Your task to perform on an android device: Clear the cart on bestbuy.com. Add jbl flip 4 to the cart on bestbuy.com, then select checkout. Image 0: 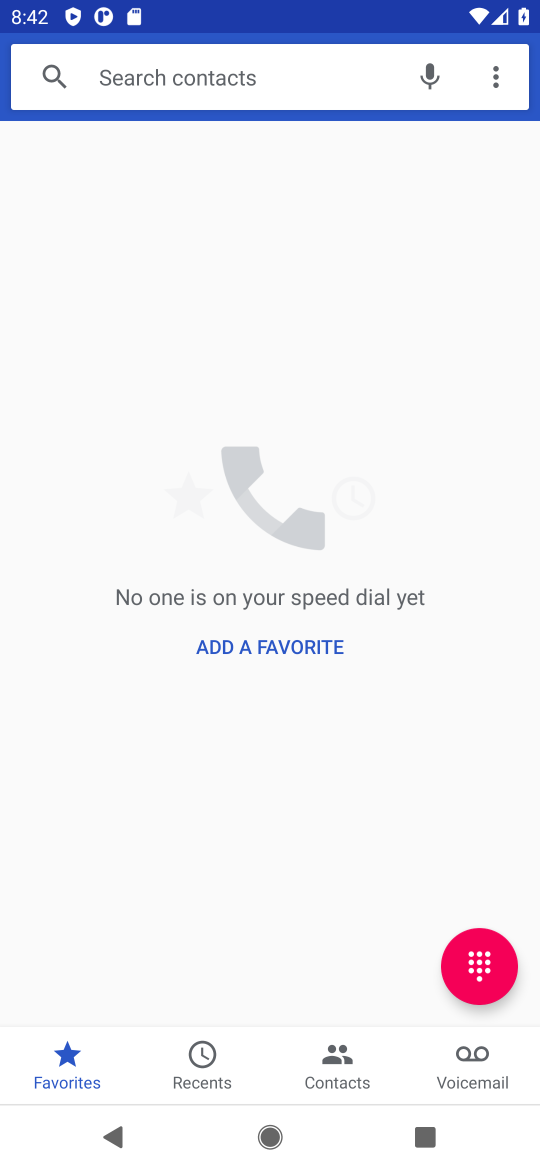
Step 0: press home button
Your task to perform on an android device: Clear the cart on bestbuy.com. Add jbl flip 4 to the cart on bestbuy.com, then select checkout. Image 1: 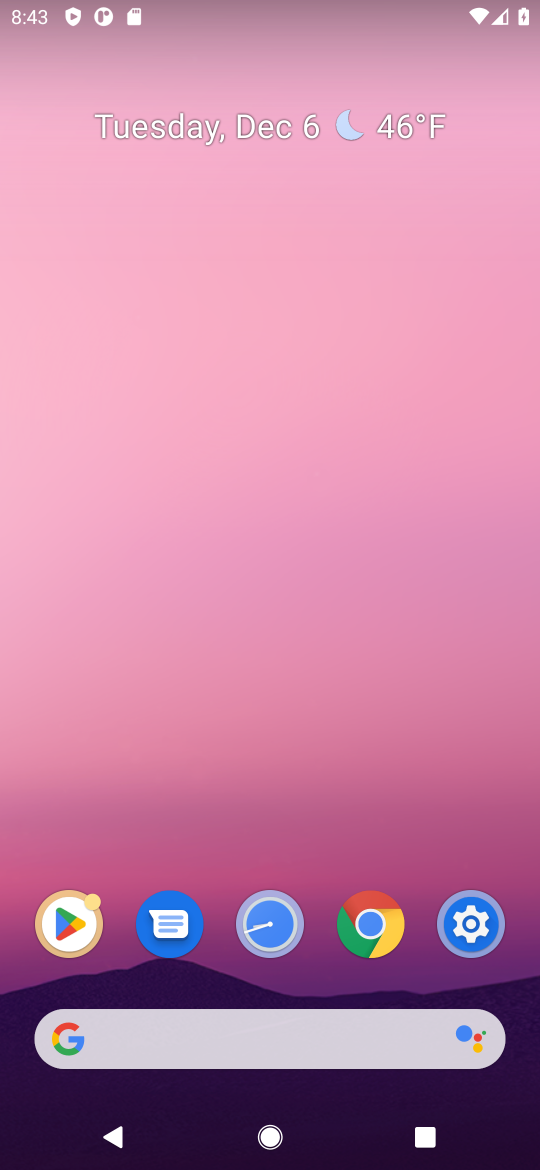
Step 1: click (368, 1045)
Your task to perform on an android device: Clear the cart on bestbuy.com. Add jbl flip 4 to the cart on bestbuy.com, then select checkout. Image 2: 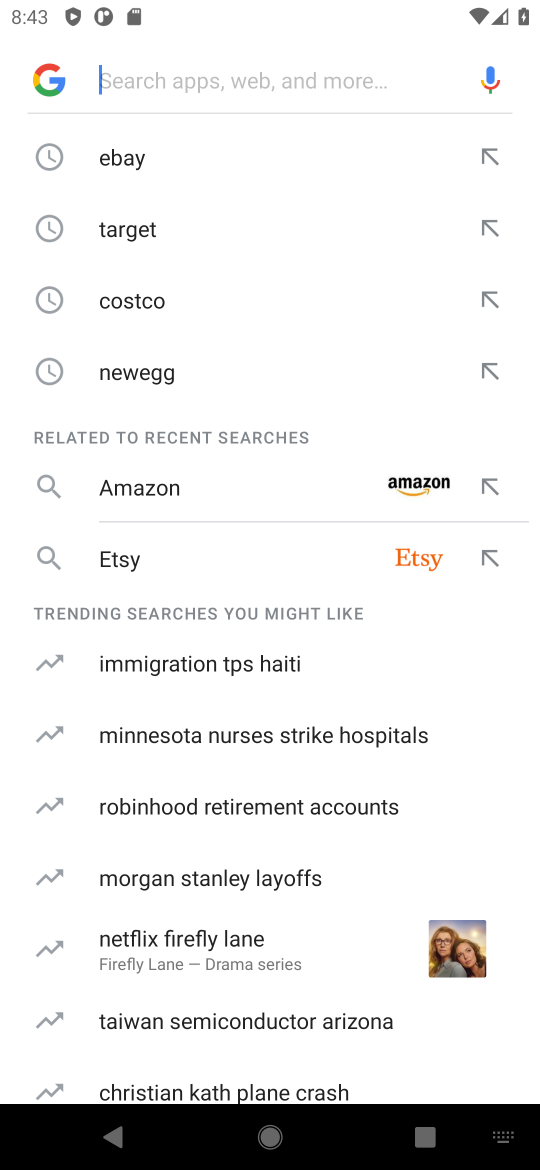
Step 2: type "bestbuy"
Your task to perform on an android device: Clear the cart on bestbuy.com. Add jbl flip 4 to the cart on bestbuy.com, then select checkout. Image 3: 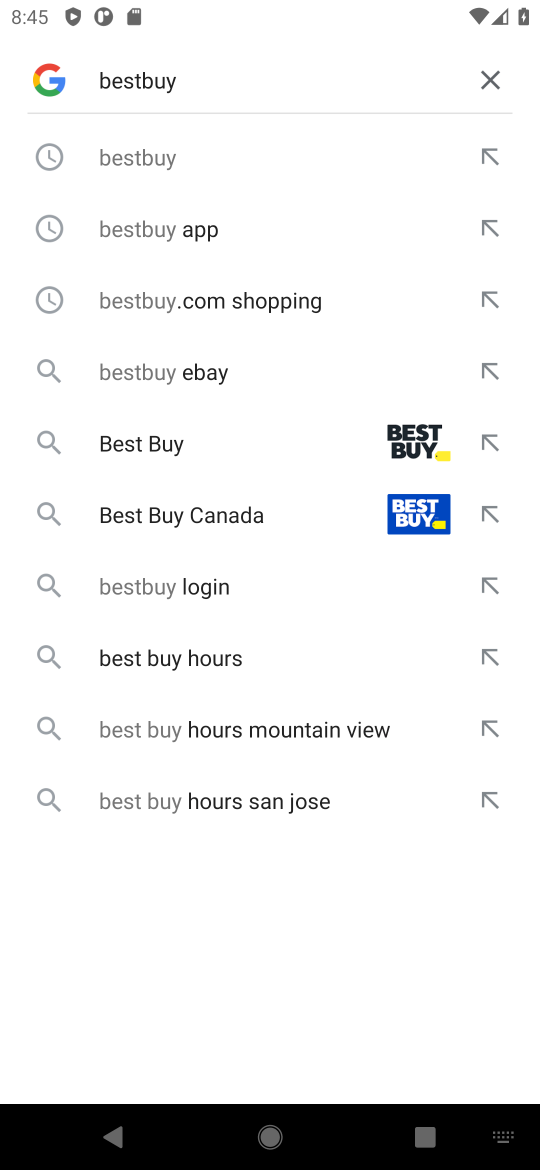
Step 3: click (176, 168)
Your task to perform on an android device: Clear the cart on bestbuy.com. Add jbl flip 4 to the cart on bestbuy.com, then select checkout. Image 4: 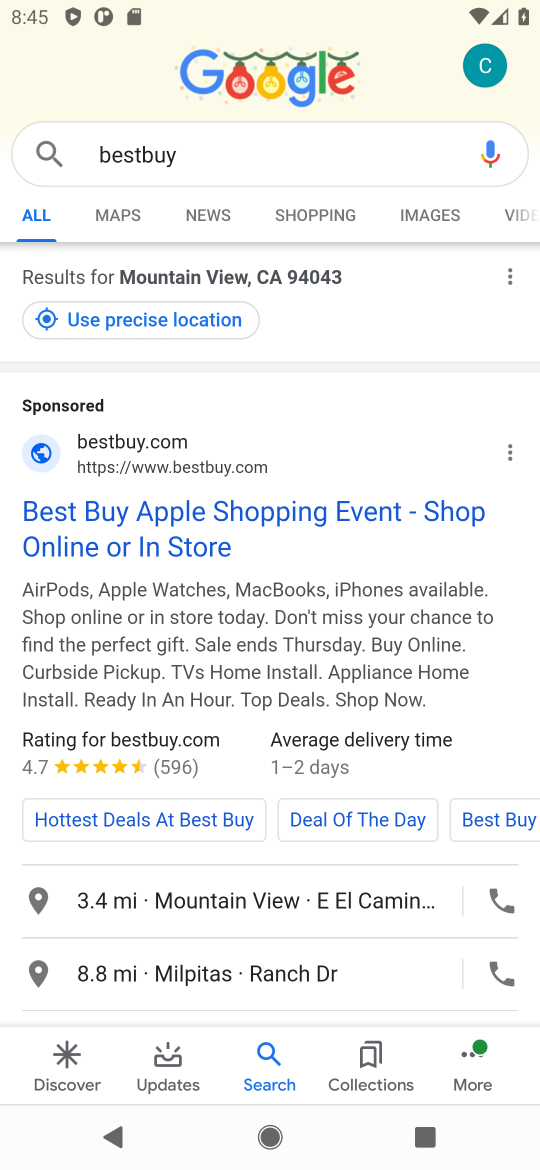
Step 4: click (273, 518)
Your task to perform on an android device: Clear the cart on bestbuy.com. Add jbl flip 4 to the cart on bestbuy.com, then select checkout. Image 5: 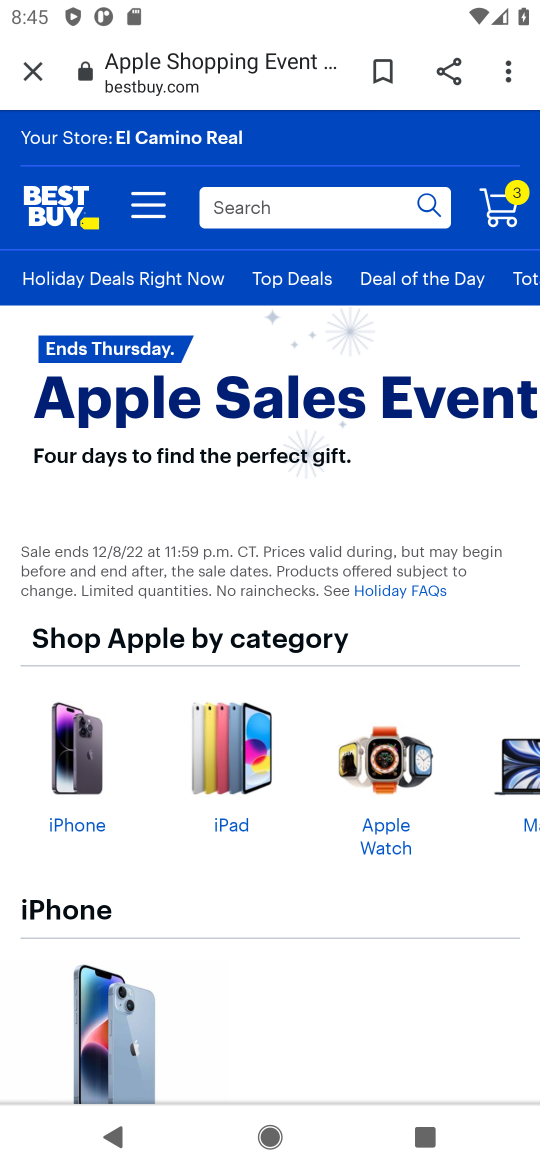
Step 5: click (317, 209)
Your task to perform on an android device: Clear the cart on bestbuy.com. Add jbl flip 4 to the cart on bestbuy.com, then select checkout. Image 6: 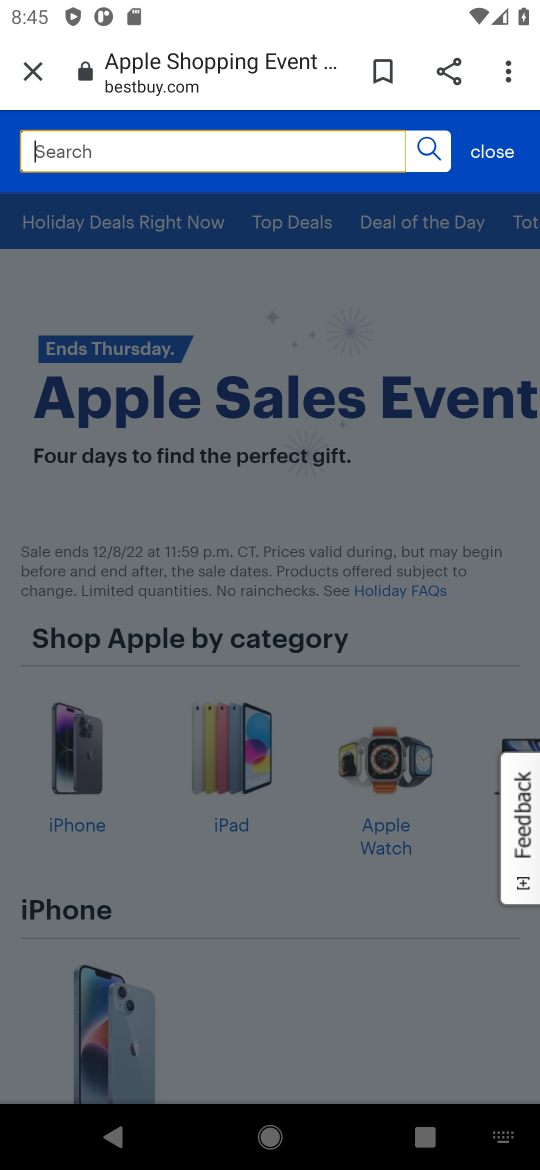
Step 6: type "jbl flip 4"
Your task to perform on an android device: Clear the cart on bestbuy.com. Add jbl flip 4 to the cart on bestbuy.com, then select checkout. Image 7: 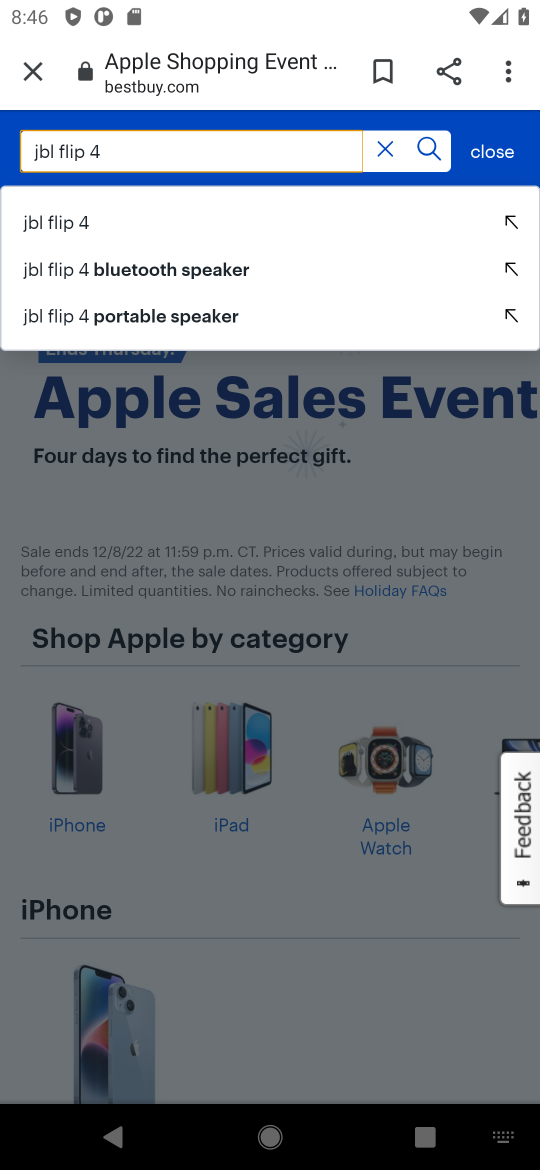
Step 7: click (76, 222)
Your task to perform on an android device: Clear the cart on bestbuy.com. Add jbl flip 4 to the cart on bestbuy.com, then select checkout. Image 8: 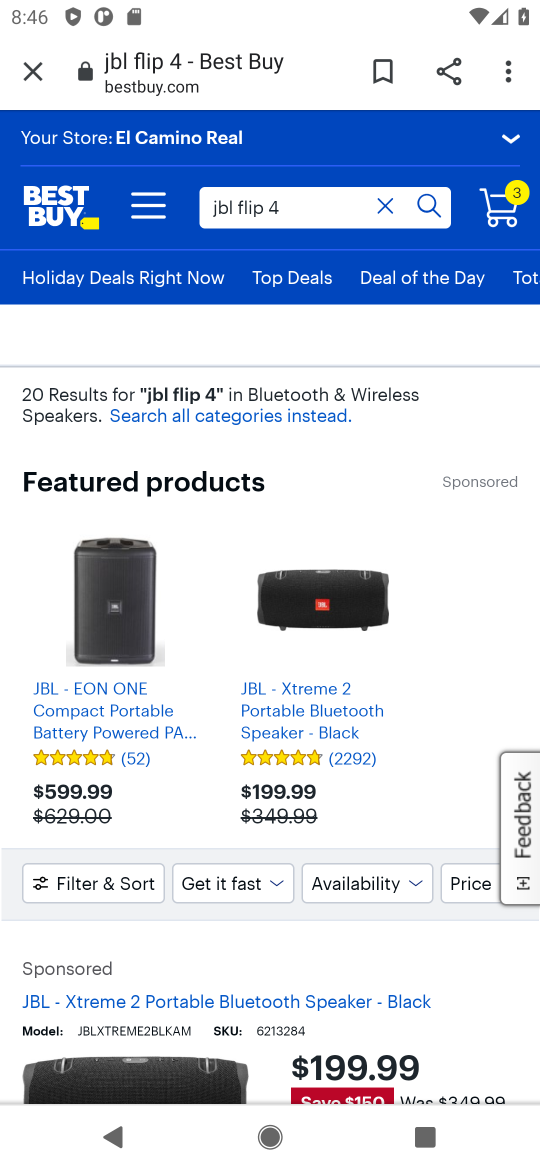
Step 8: task complete